Your task to perform on an android device: make emails show in primary in the gmail app Image 0: 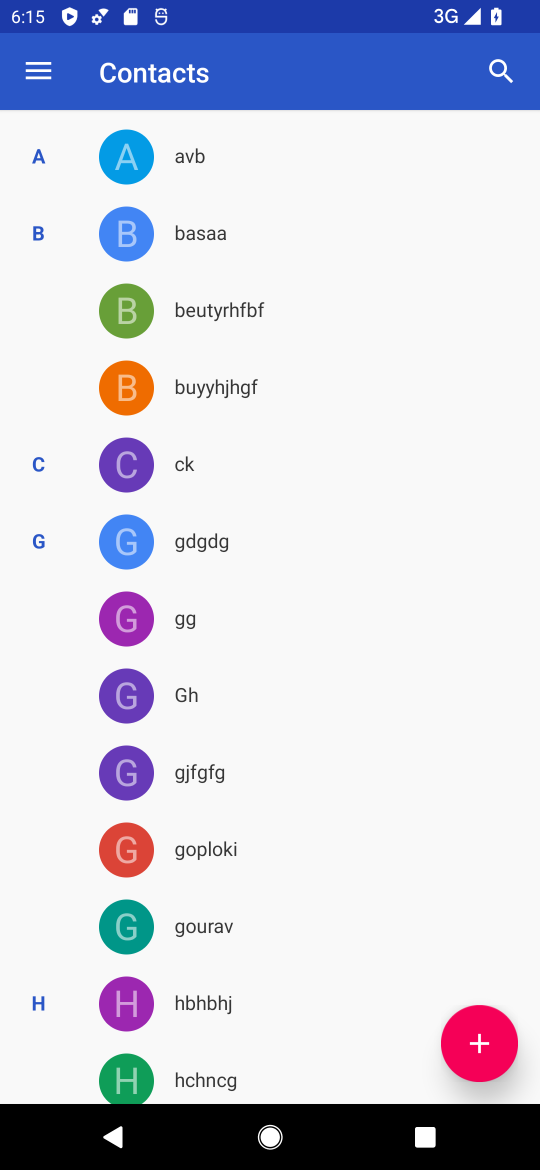
Step 0: press home button
Your task to perform on an android device: make emails show in primary in the gmail app Image 1: 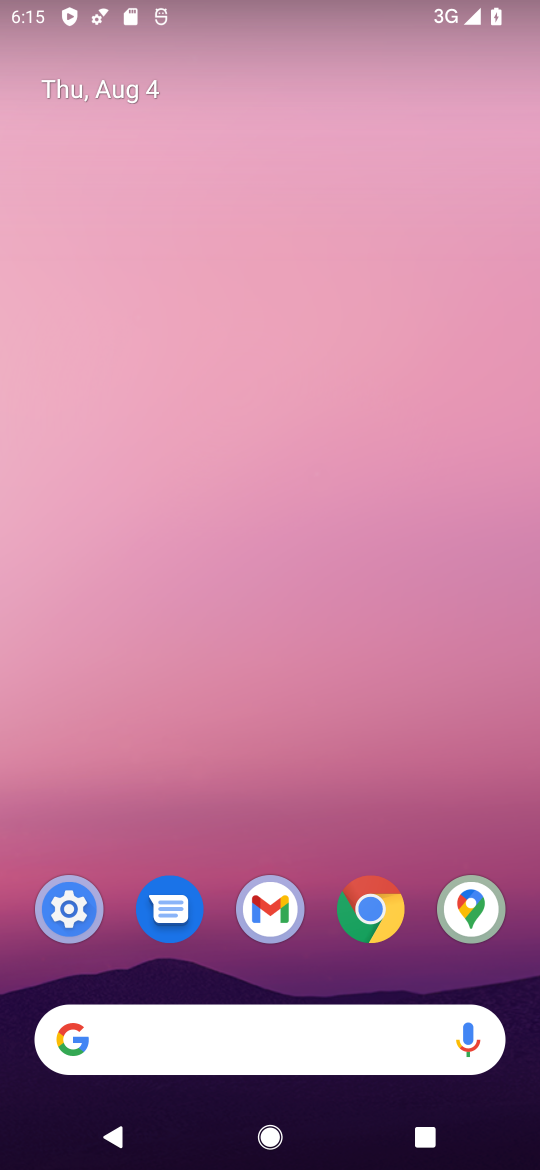
Step 1: drag from (353, 1109) to (446, 113)
Your task to perform on an android device: make emails show in primary in the gmail app Image 2: 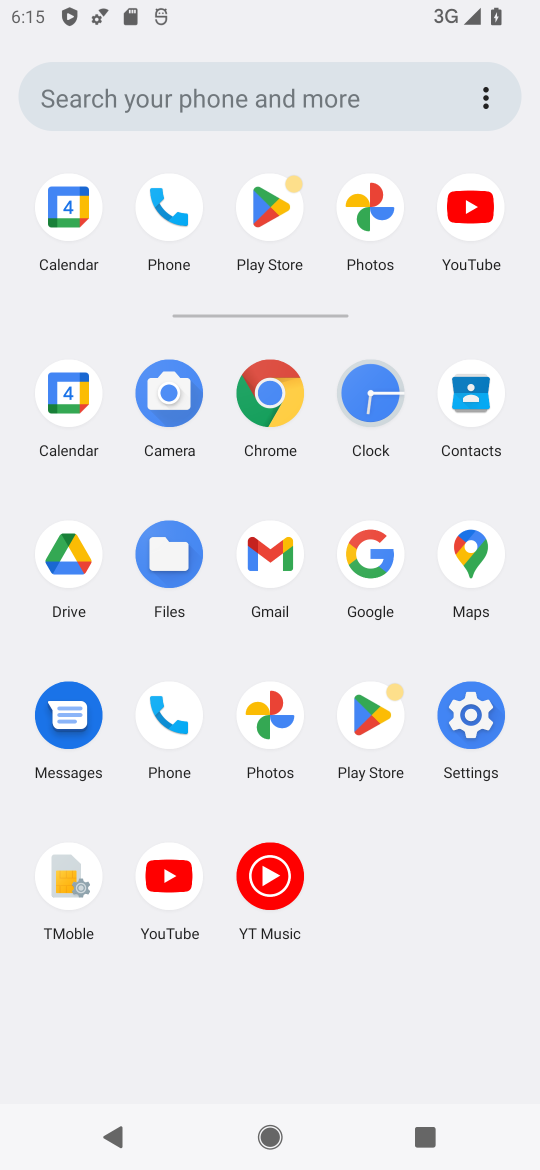
Step 2: click (260, 570)
Your task to perform on an android device: make emails show in primary in the gmail app Image 3: 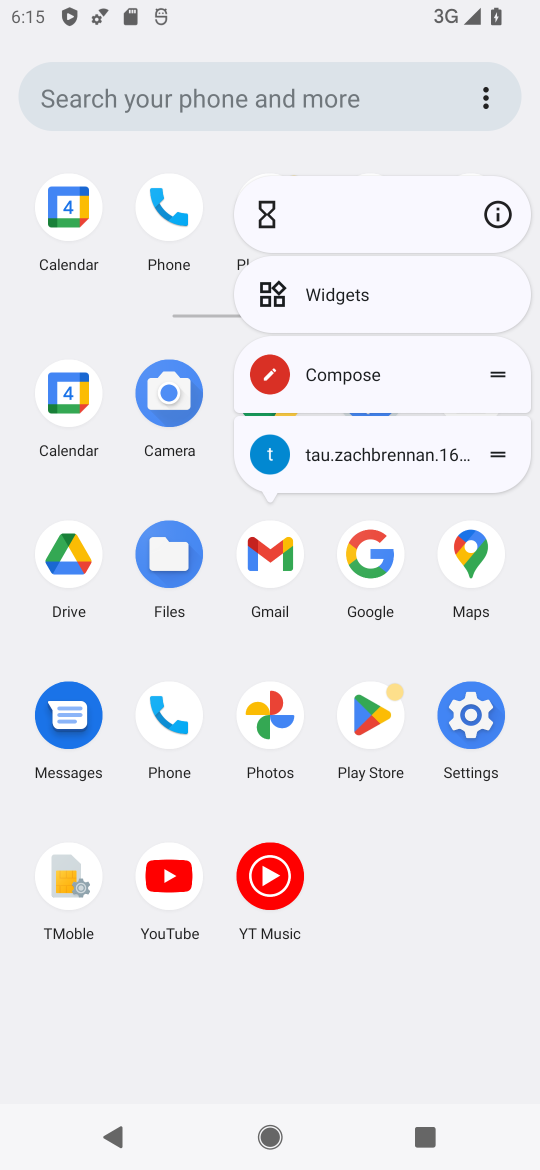
Step 3: click (261, 550)
Your task to perform on an android device: make emails show in primary in the gmail app Image 4: 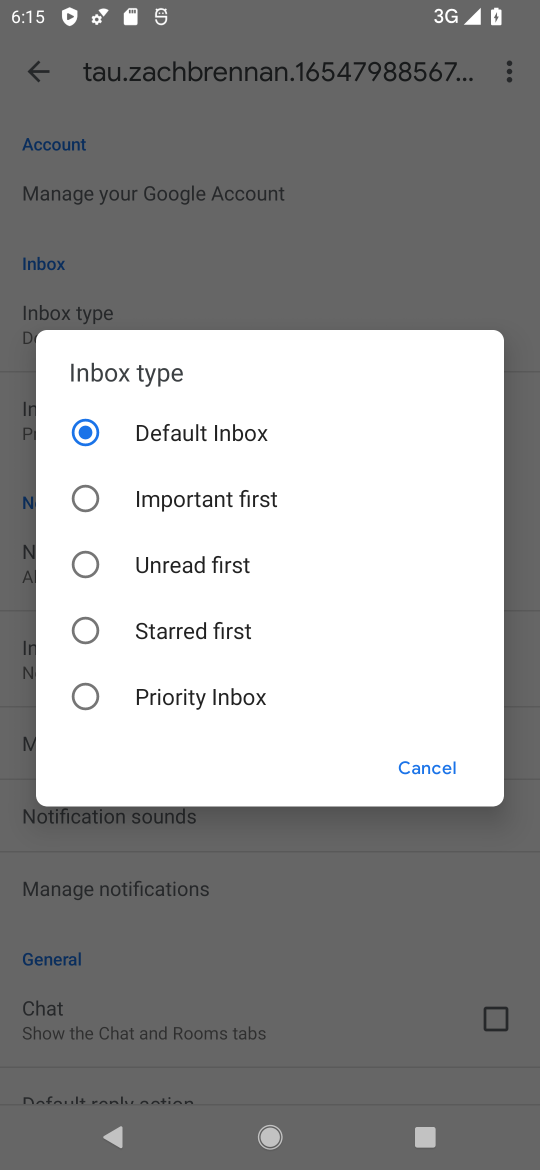
Step 4: task complete